Your task to perform on an android device: Open Wikipedia Image 0: 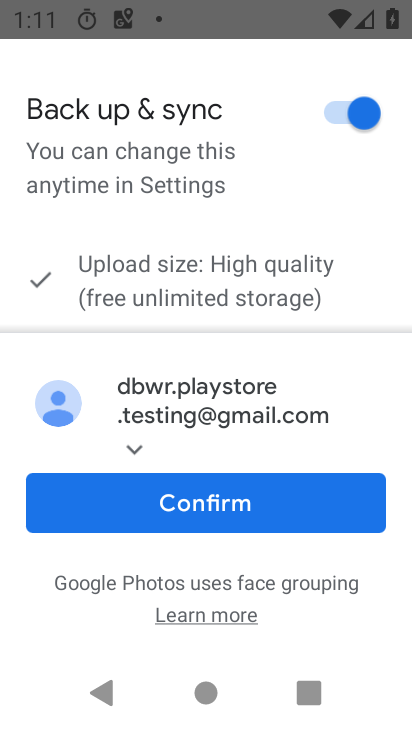
Step 0: press home button
Your task to perform on an android device: Open Wikipedia Image 1: 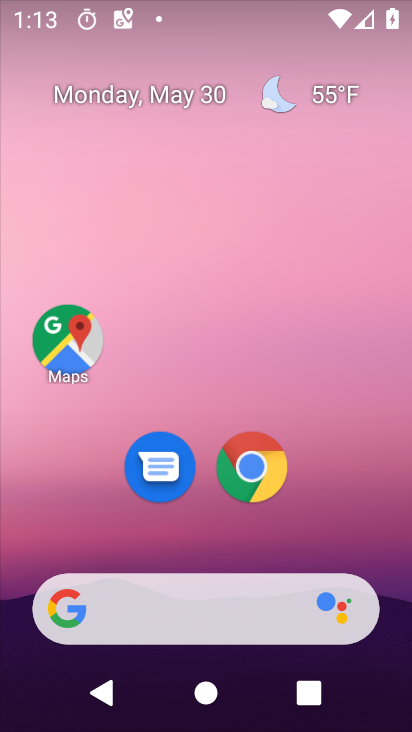
Step 1: click (240, 458)
Your task to perform on an android device: Open Wikipedia Image 2: 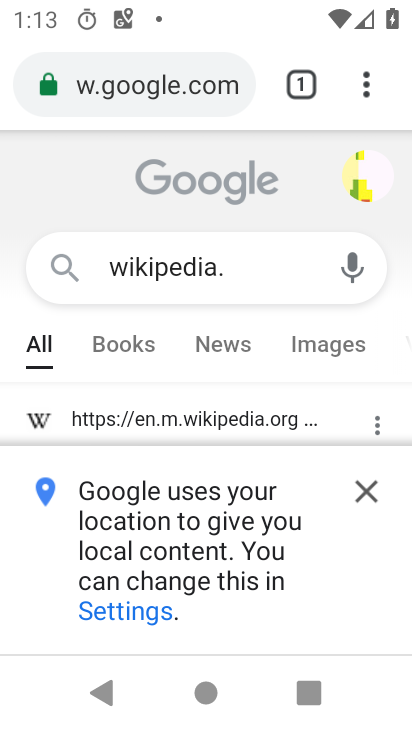
Step 2: task complete